Your task to perform on an android device: delete a single message in the gmail app Image 0: 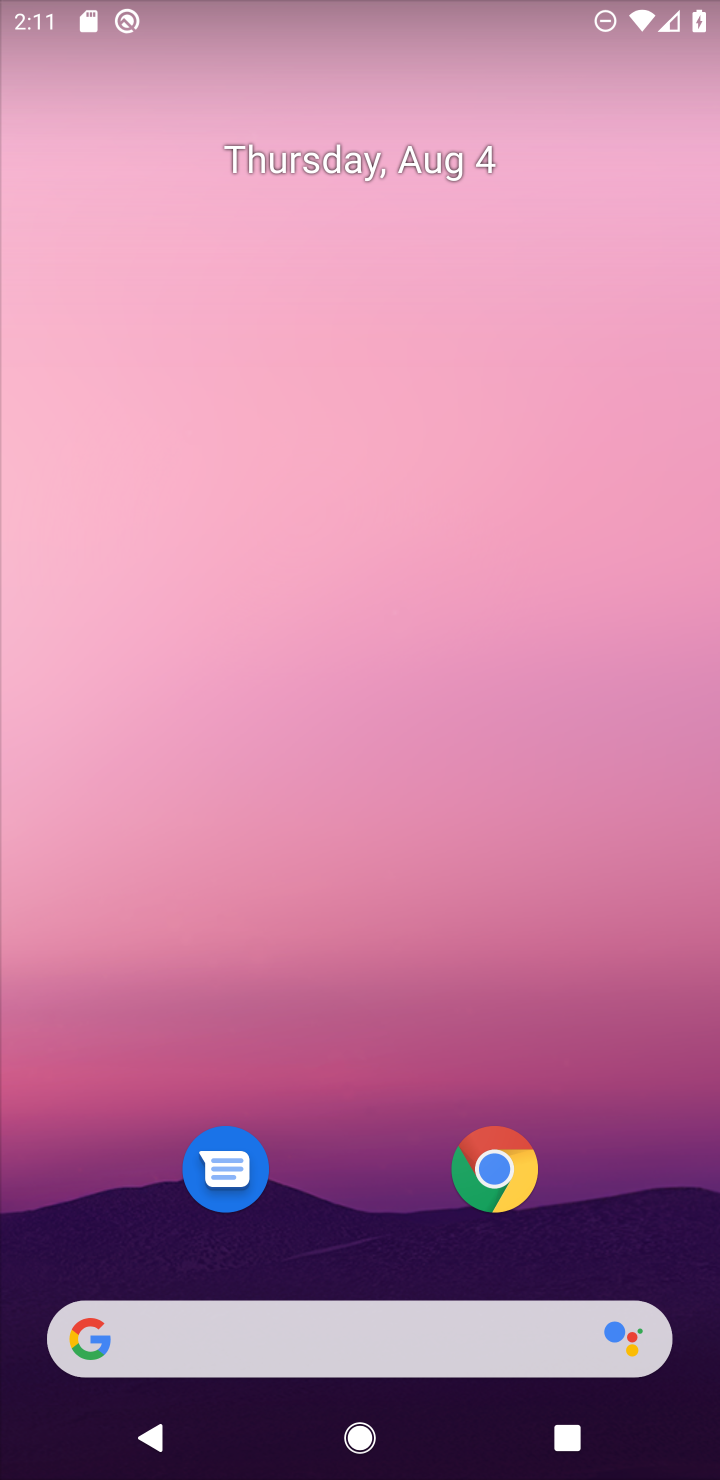
Step 0: drag from (374, 1216) to (382, 218)
Your task to perform on an android device: delete a single message in the gmail app Image 1: 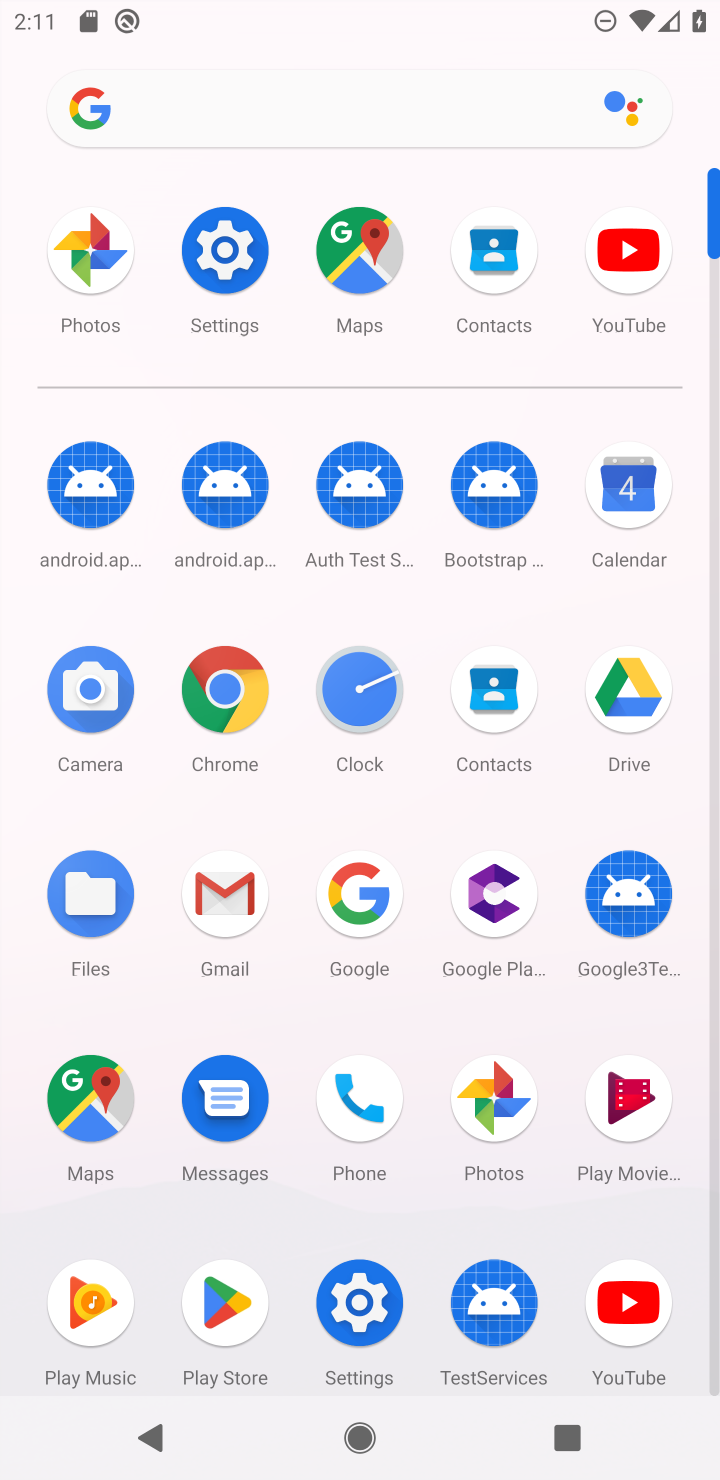
Step 1: click (211, 898)
Your task to perform on an android device: delete a single message in the gmail app Image 2: 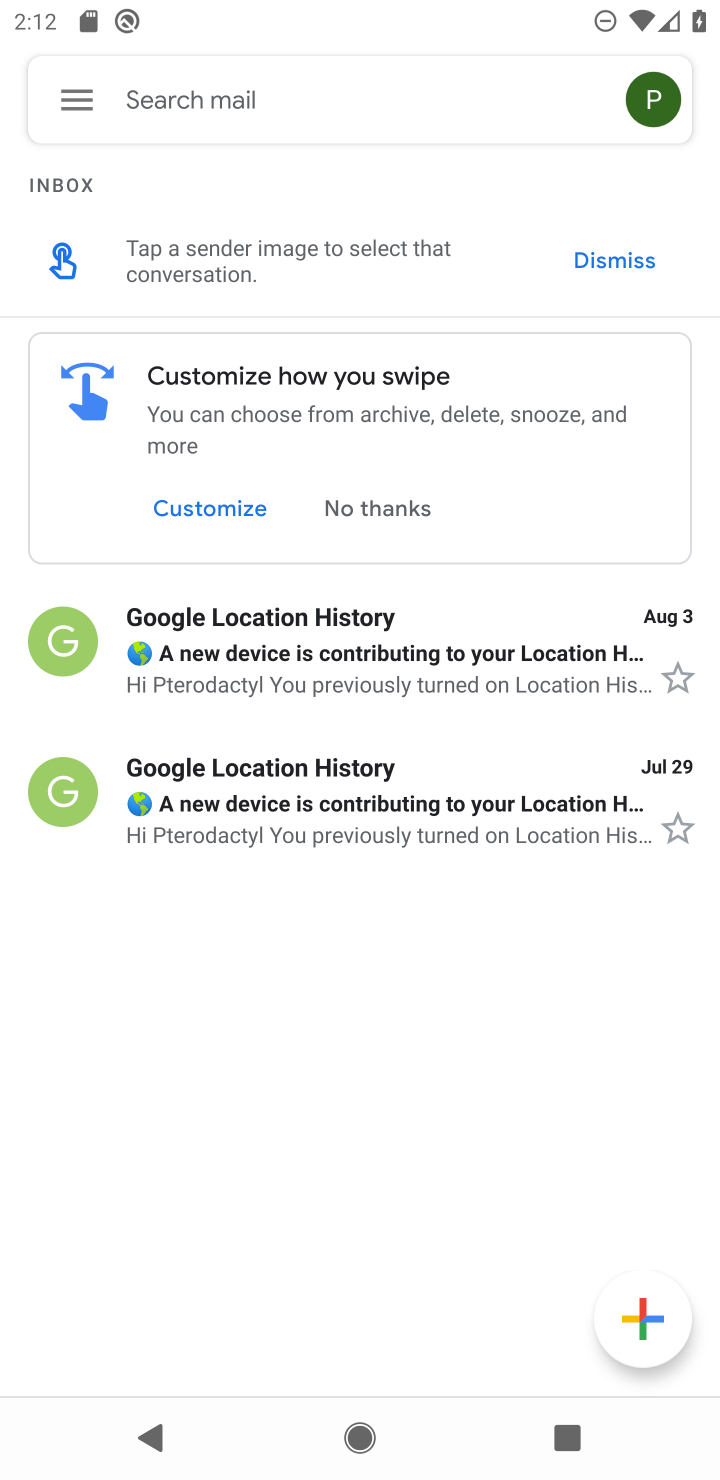
Step 2: click (291, 646)
Your task to perform on an android device: delete a single message in the gmail app Image 3: 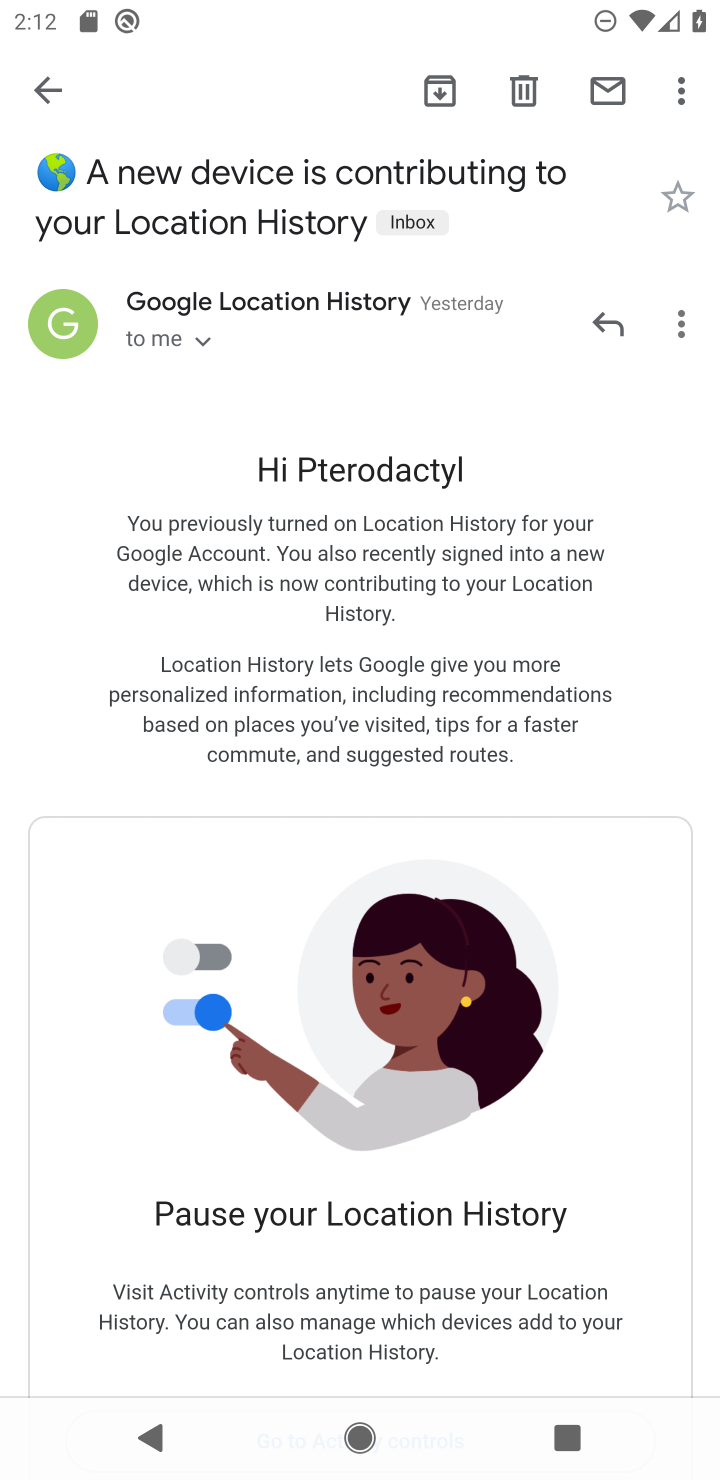
Step 3: click (514, 89)
Your task to perform on an android device: delete a single message in the gmail app Image 4: 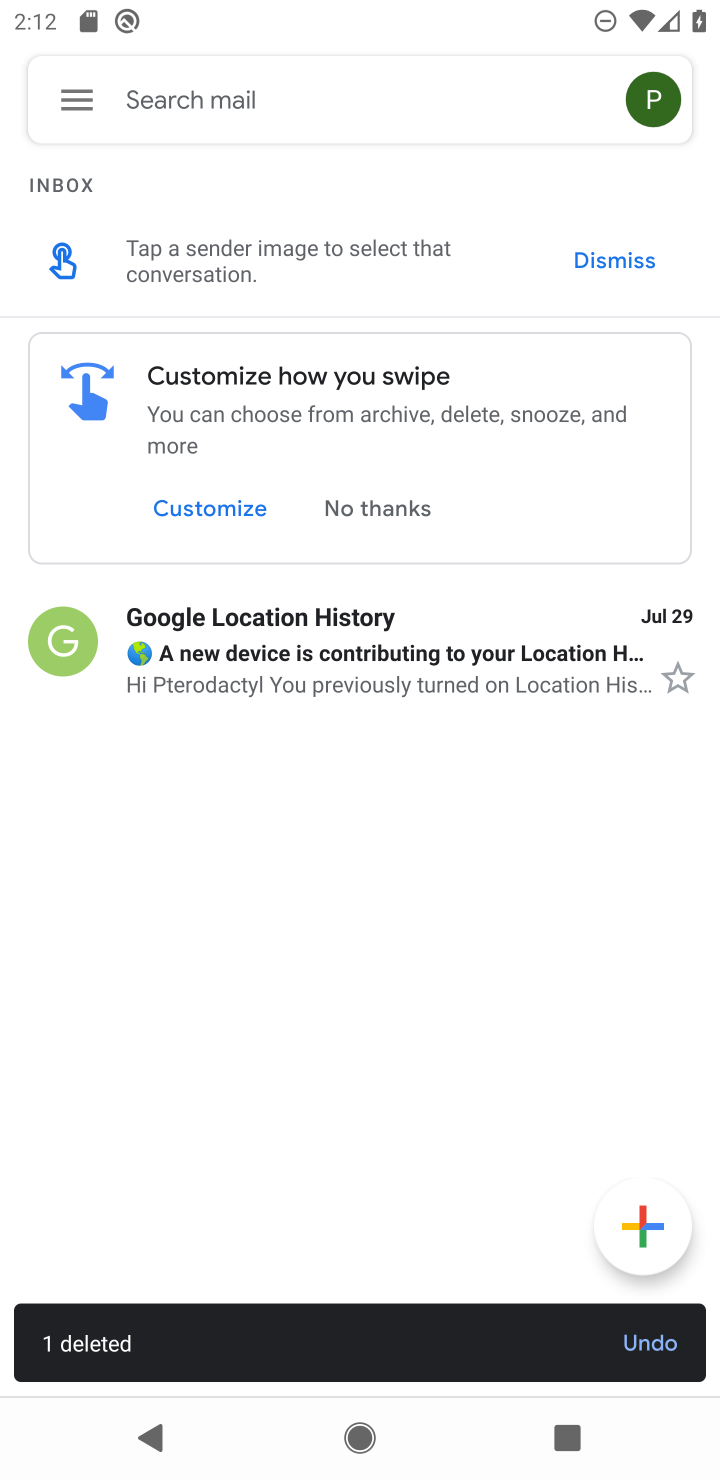
Step 4: task complete